Your task to perform on an android device: turn off improve location accuracy Image 0: 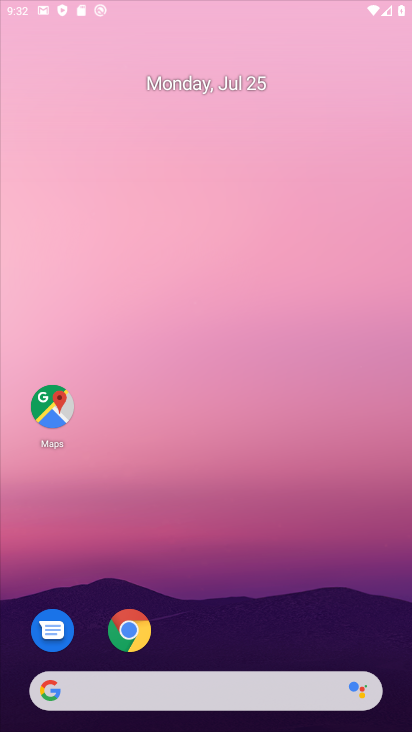
Step 0: press home button
Your task to perform on an android device: turn off improve location accuracy Image 1: 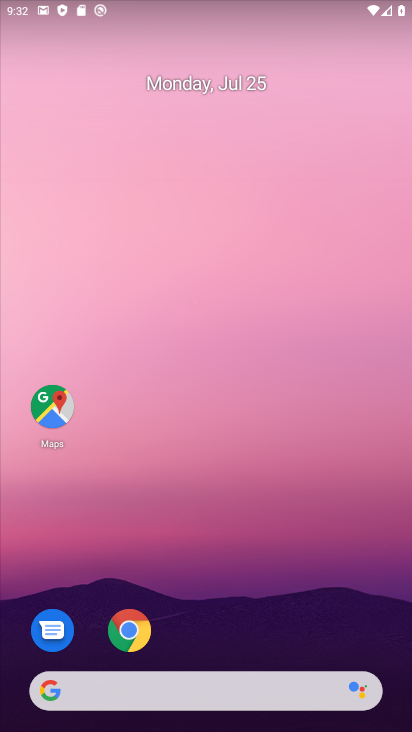
Step 1: drag from (263, 616) to (265, 0)
Your task to perform on an android device: turn off improve location accuracy Image 2: 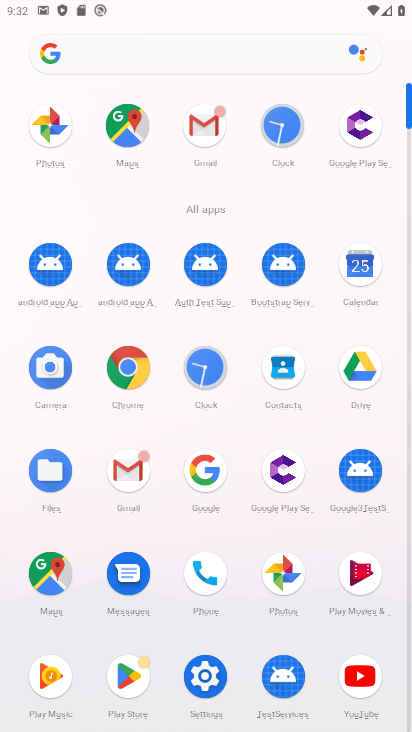
Step 2: click (200, 675)
Your task to perform on an android device: turn off improve location accuracy Image 3: 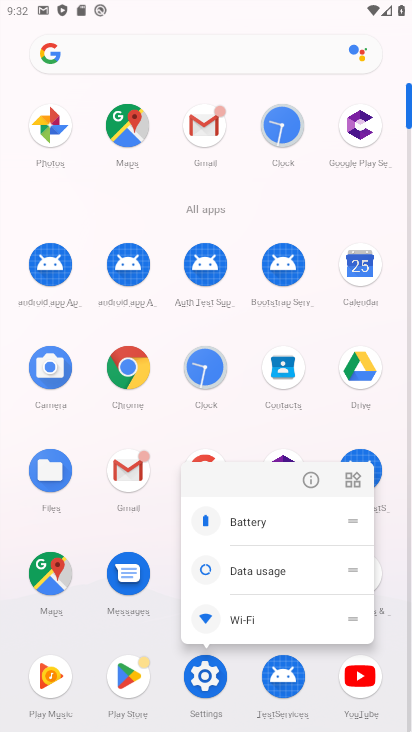
Step 3: click (201, 678)
Your task to perform on an android device: turn off improve location accuracy Image 4: 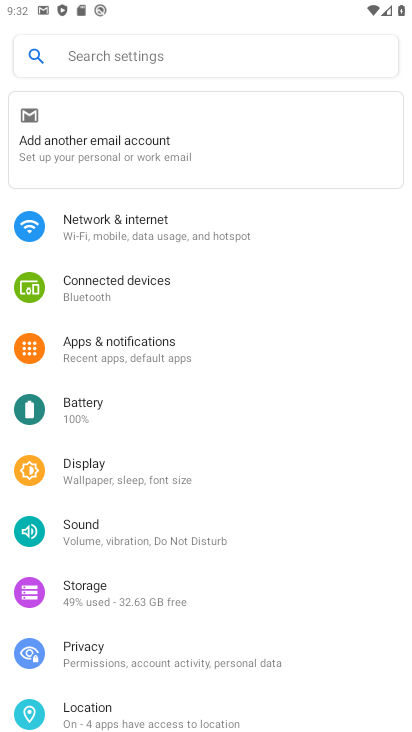
Step 4: click (78, 721)
Your task to perform on an android device: turn off improve location accuracy Image 5: 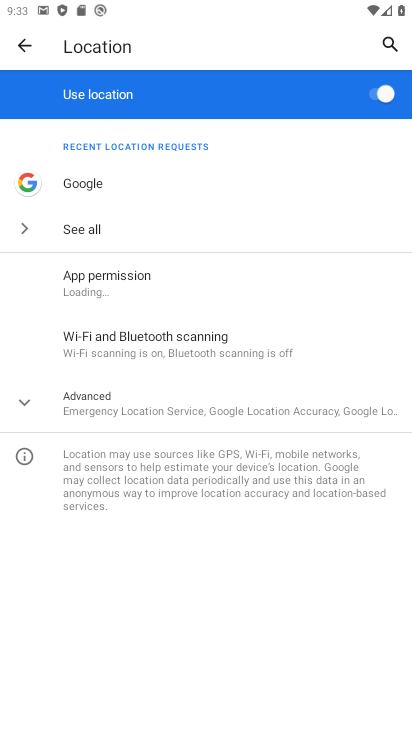
Step 5: click (26, 405)
Your task to perform on an android device: turn off improve location accuracy Image 6: 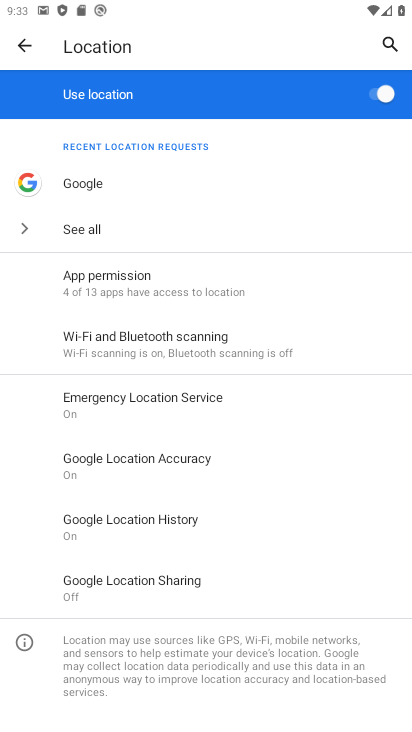
Step 6: click (135, 458)
Your task to perform on an android device: turn off improve location accuracy Image 7: 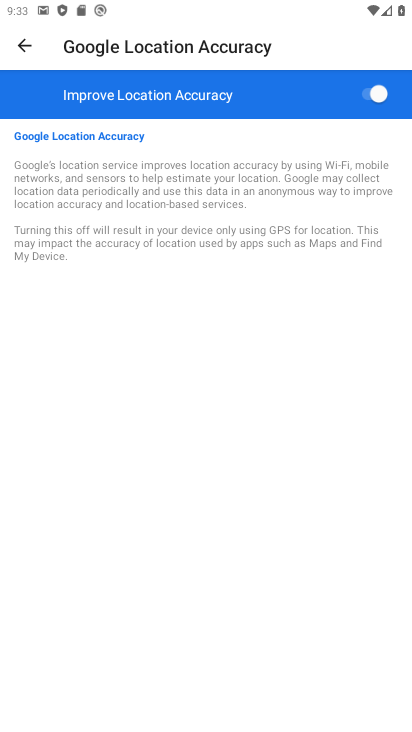
Step 7: click (382, 90)
Your task to perform on an android device: turn off improve location accuracy Image 8: 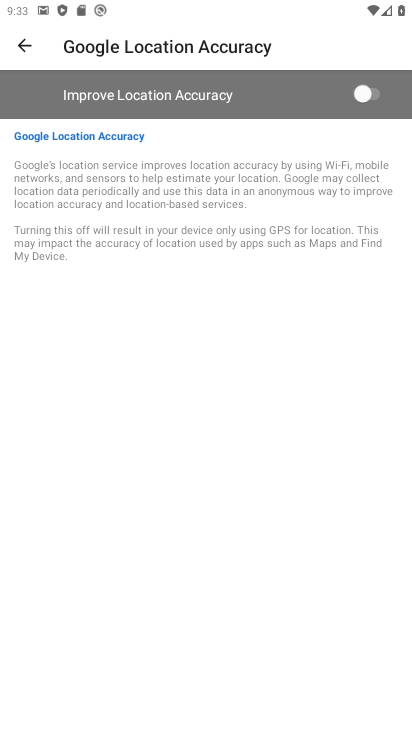
Step 8: task complete